Your task to perform on an android device: allow cookies in the chrome app Image 0: 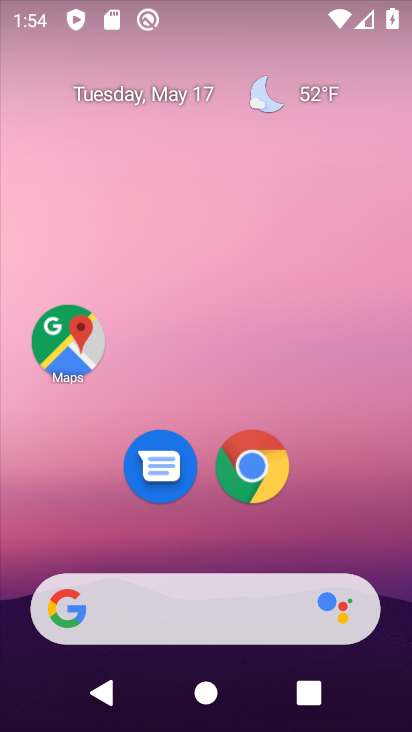
Step 0: click (265, 473)
Your task to perform on an android device: allow cookies in the chrome app Image 1: 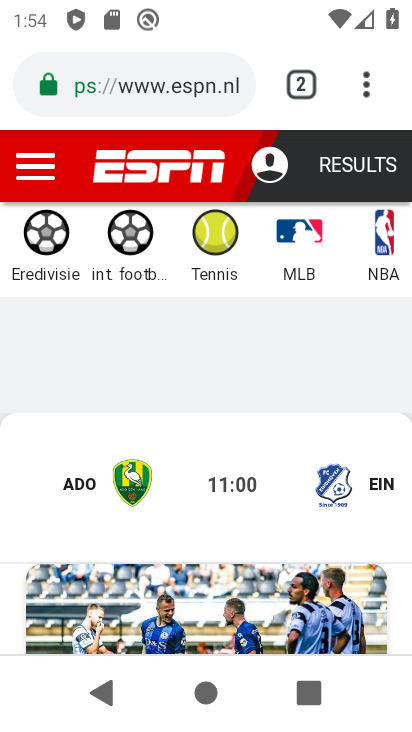
Step 1: drag from (390, 92) to (243, 530)
Your task to perform on an android device: allow cookies in the chrome app Image 2: 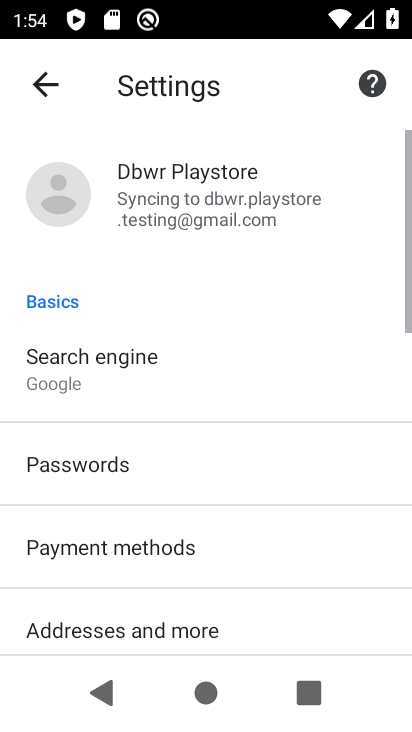
Step 2: drag from (166, 554) to (227, 172)
Your task to perform on an android device: allow cookies in the chrome app Image 3: 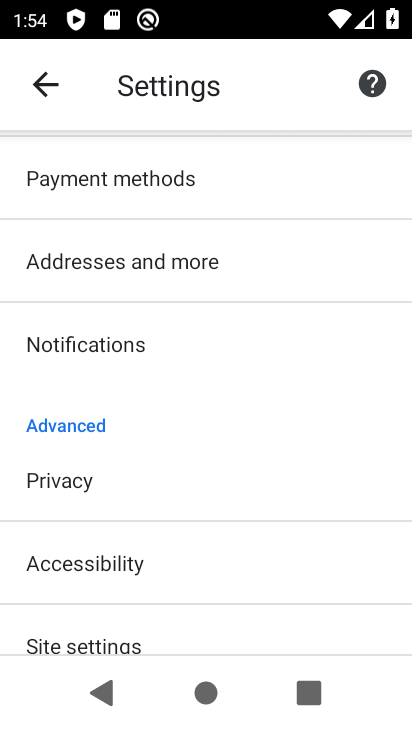
Step 3: drag from (174, 528) to (249, 239)
Your task to perform on an android device: allow cookies in the chrome app Image 4: 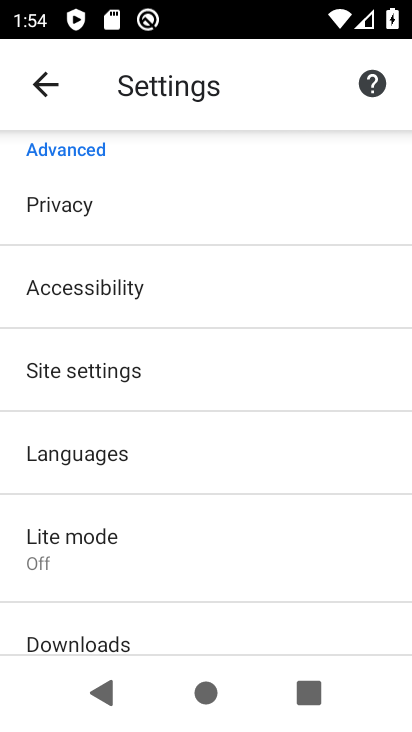
Step 4: click (188, 369)
Your task to perform on an android device: allow cookies in the chrome app Image 5: 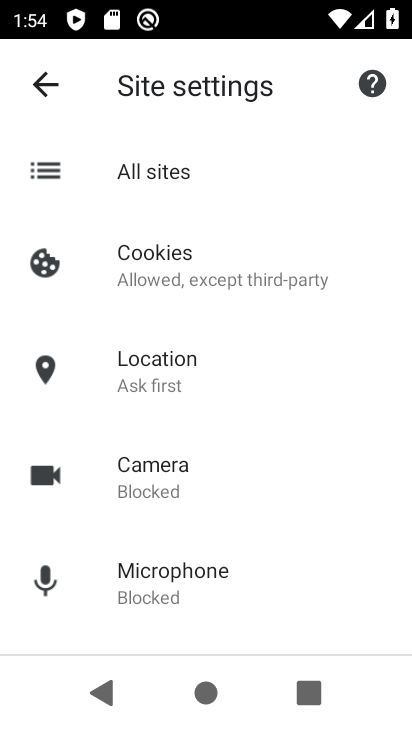
Step 5: click (241, 268)
Your task to perform on an android device: allow cookies in the chrome app Image 6: 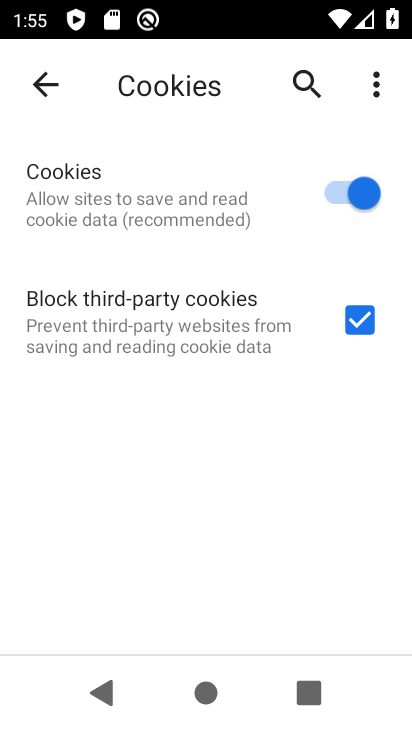
Step 6: task complete